Your task to perform on an android device: Do I have any events this weekend? Image 0: 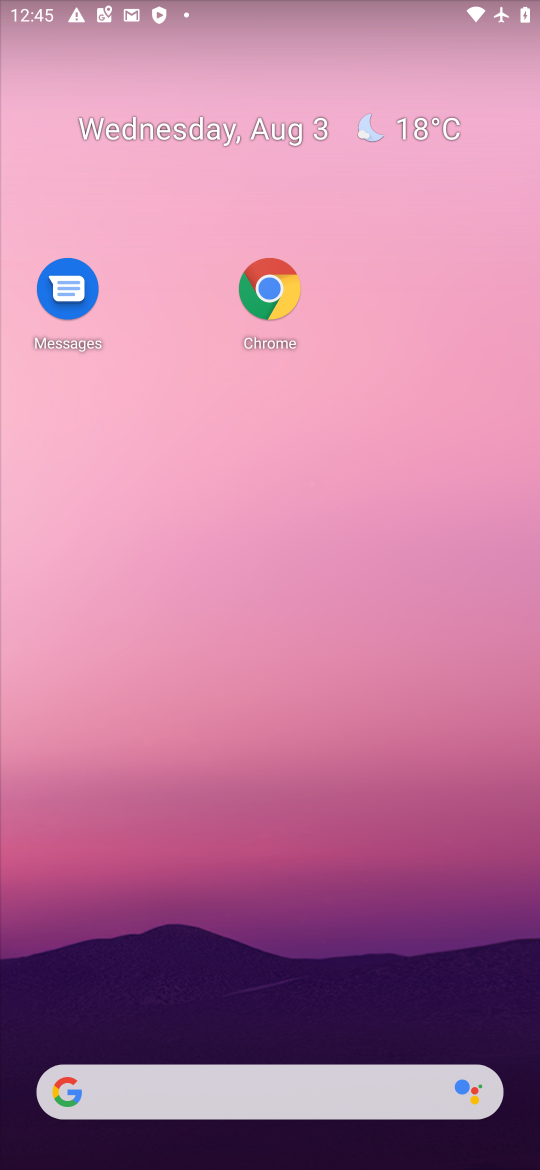
Step 0: drag from (418, 1018) to (184, 297)
Your task to perform on an android device: Do I have any events this weekend? Image 1: 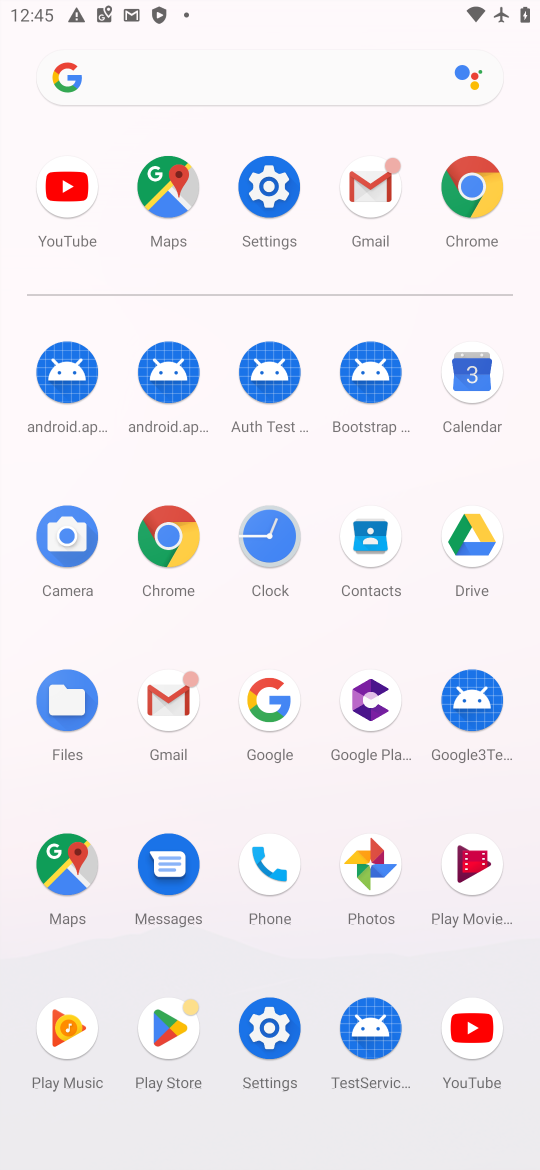
Step 1: click (290, 236)
Your task to perform on an android device: Do I have any events this weekend? Image 2: 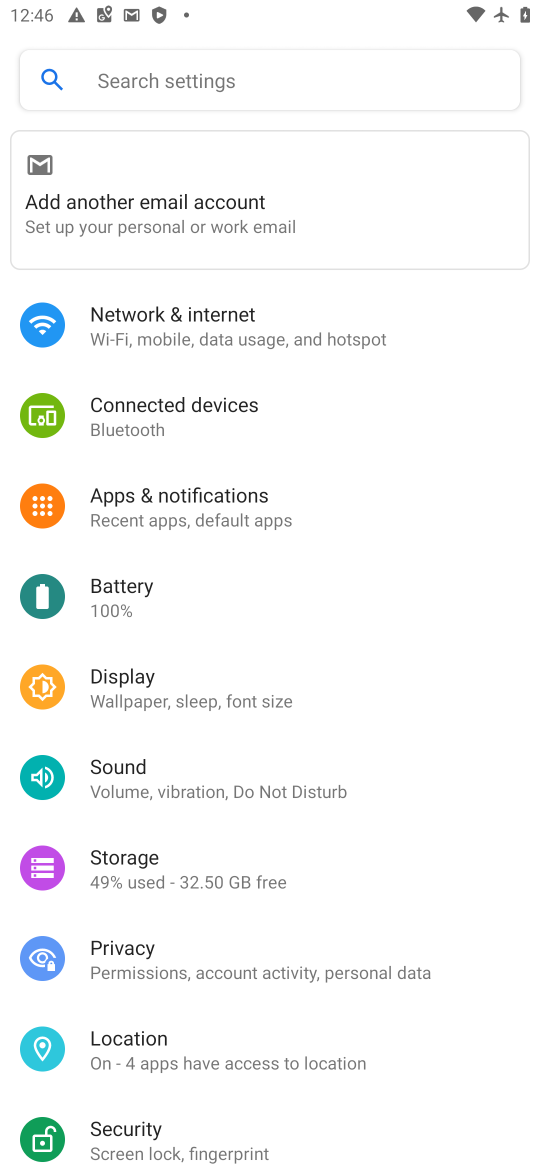
Step 2: task complete